Your task to perform on an android device: What's the weather today? Image 0: 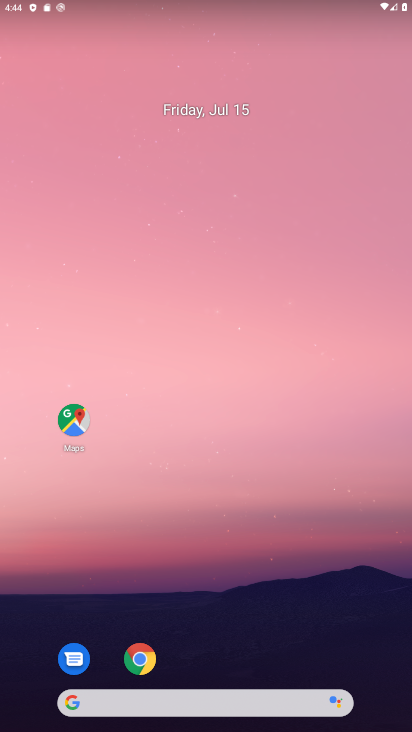
Step 0: drag from (272, 516) to (270, 86)
Your task to perform on an android device: What's the weather today? Image 1: 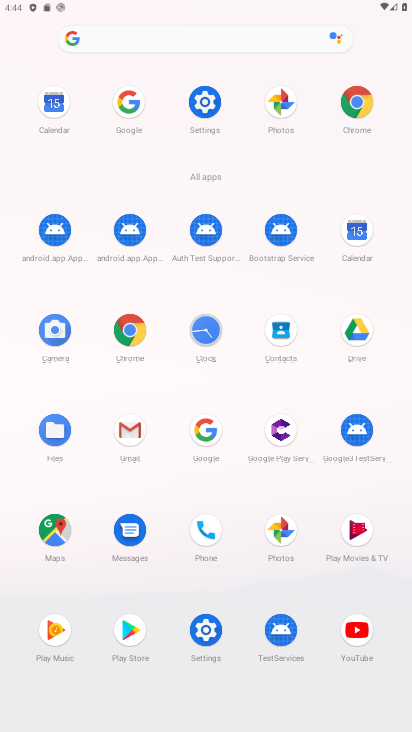
Step 1: click (215, 422)
Your task to perform on an android device: What's the weather today? Image 2: 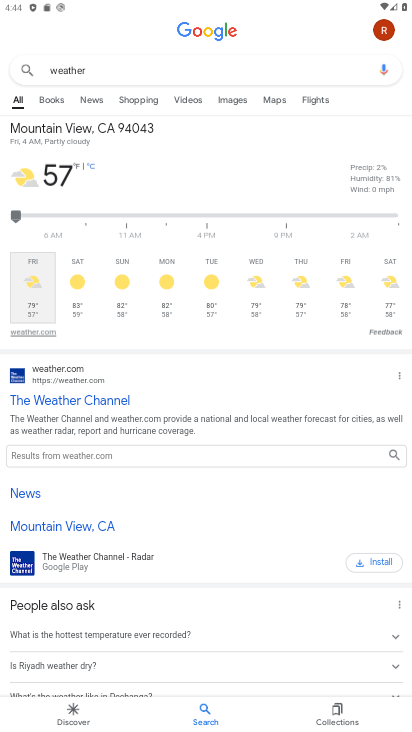
Step 2: task complete